Your task to perform on an android device: Go to Google Image 0: 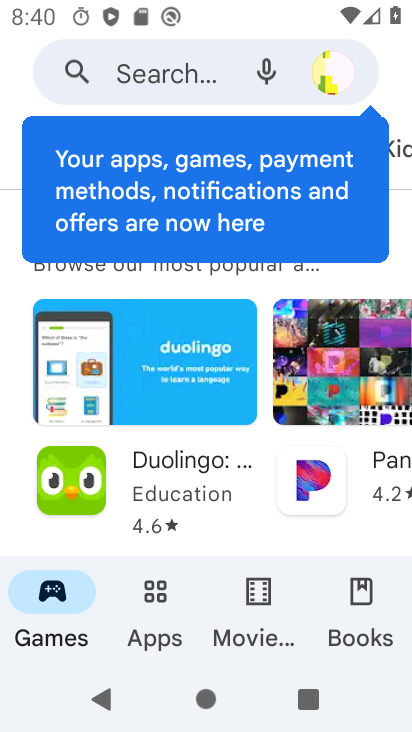
Step 0: press home button
Your task to perform on an android device: Go to Google Image 1: 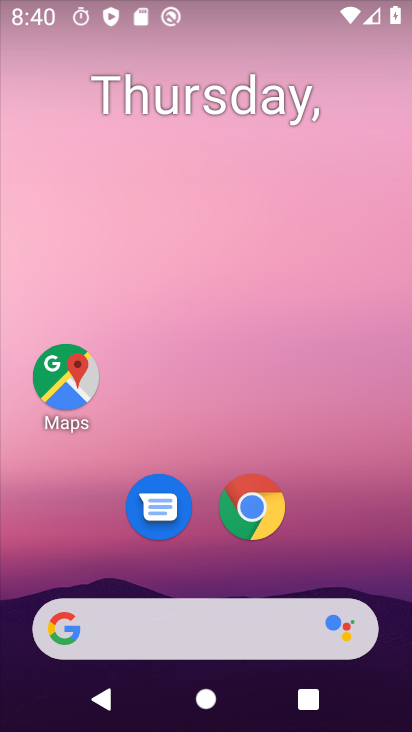
Step 1: click (181, 644)
Your task to perform on an android device: Go to Google Image 2: 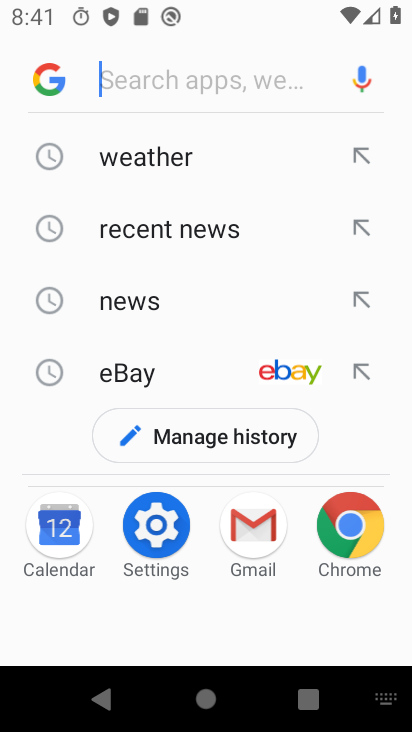
Step 2: click (43, 88)
Your task to perform on an android device: Go to Google Image 3: 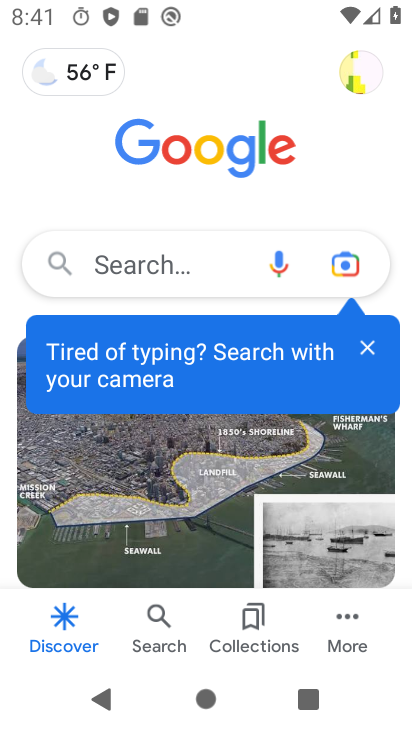
Step 3: task complete